Your task to perform on an android device: Search for a dining table on Crate & Barrel Image 0: 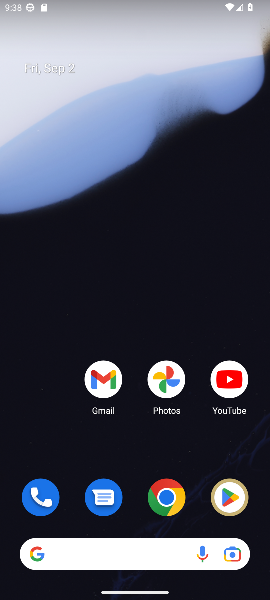
Step 0: drag from (122, 507) to (134, 137)
Your task to perform on an android device: Search for a dining table on Crate & Barrel Image 1: 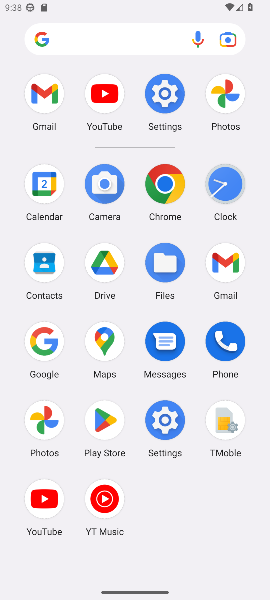
Step 1: click (43, 352)
Your task to perform on an android device: Search for a dining table on Crate & Barrel Image 2: 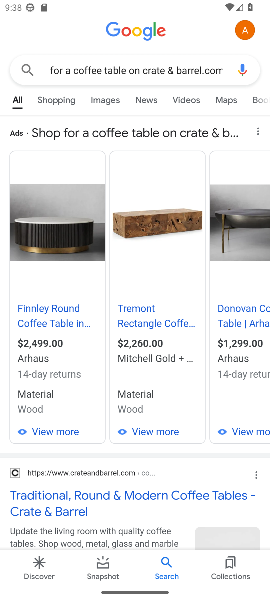
Step 2: click (209, 72)
Your task to perform on an android device: Search for a dining table on Crate & Barrel Image 3: 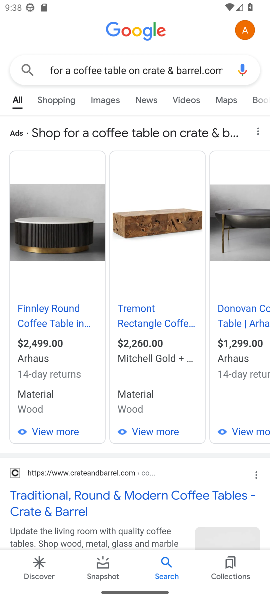
Step 3: click (209, 72)
Your task to perform on an android device: Search for a dining table on Crate & Barrel Image 4: 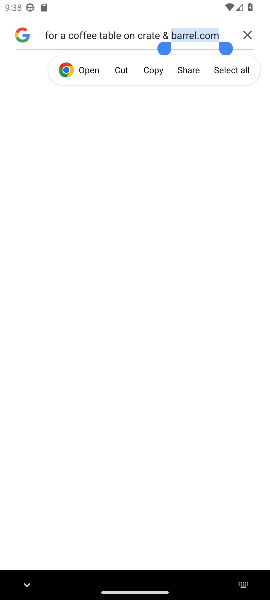
Step 4: click (245, 31)
Your task to perform on an android device: Search for a dining table on Crate & Barrel Image 5: 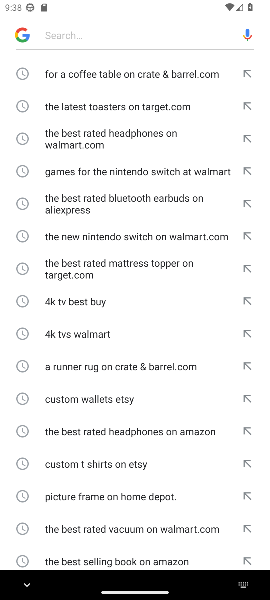
Step 5: click (131, 26)
Your task to perform on an android device: Search for a dining table on Crate & Barrel Image 6: 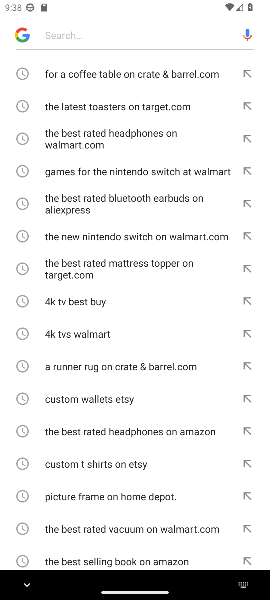
Step 6: click (98, 33)
Your task to perform on an android device: Search for a dining table on Crate & Barrel Image 7: 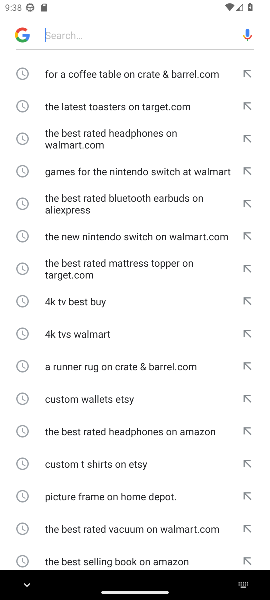
Step 7: click (80, 34)
Your task to perform on an android device: Search for a dining table on Crate & Barrel Image 8: 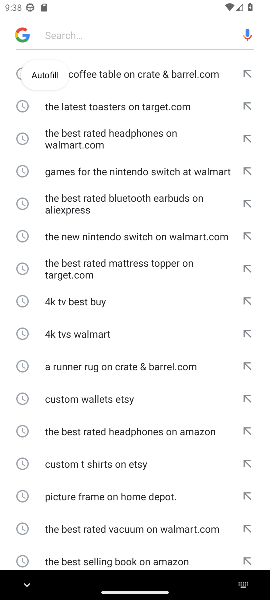
Step 8: type "Search for a dining table on Crate & Barrel"
Your task to perform on an android device: Search for a dining table on Crate & Barrel Image 9: 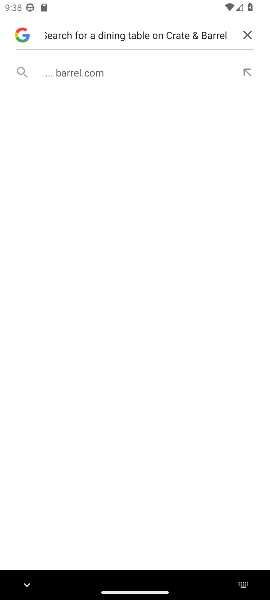
Step 9: click (68, 75)
Your task to perform on an android device: Search for a dining table on Crate & Barrel Image 10: 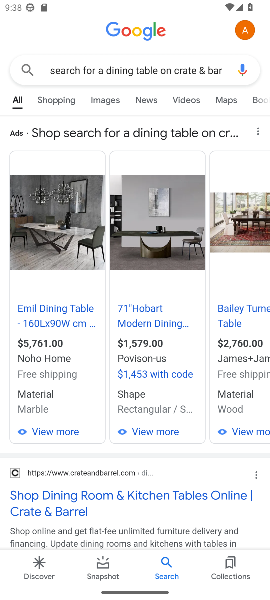
Step 10: task complete